Your task to perform on an android device: turn notification dots off Image 0: 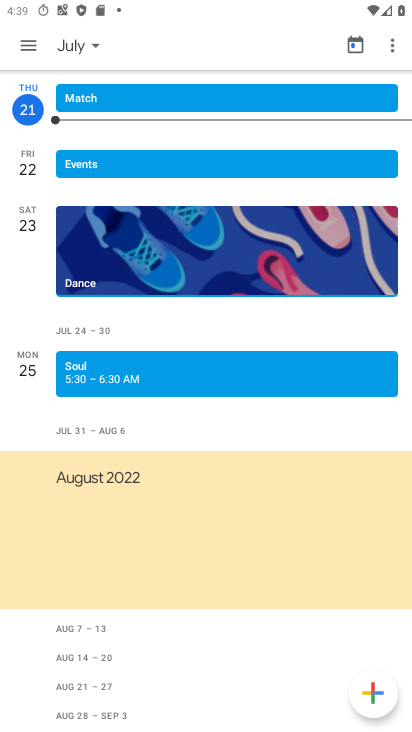
Step 0: press home button
Your task to perform on an android device: turn notification dots off Image 1: 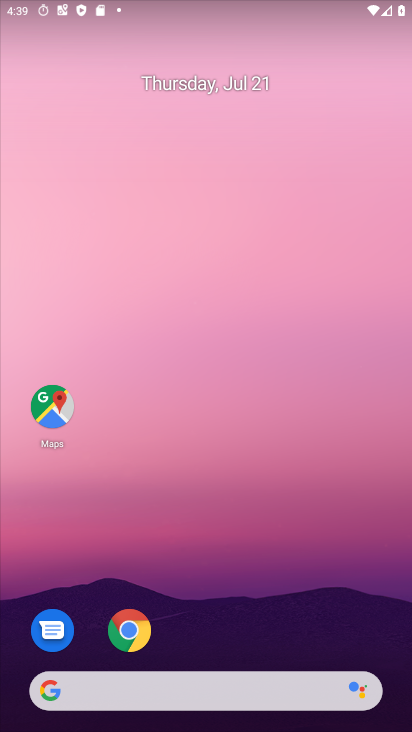
Step 1: drag from (233, 684) to (308, 77)
Your task to perform on an android device: turn notification dots off Image 2: 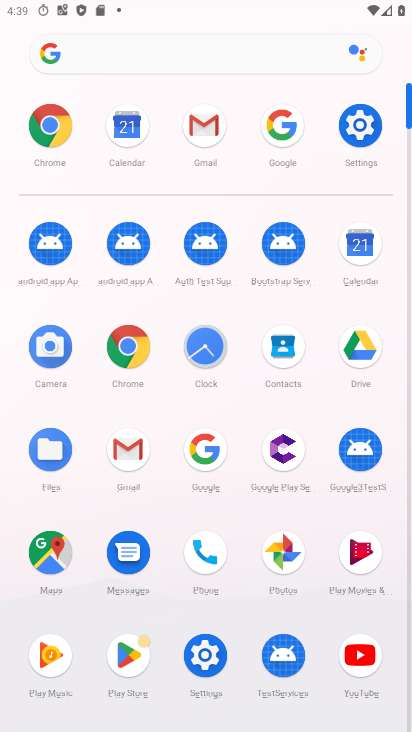
Step 2: click (359, 123)
Your task to perform on an android device: turn notification dots off Image 3: 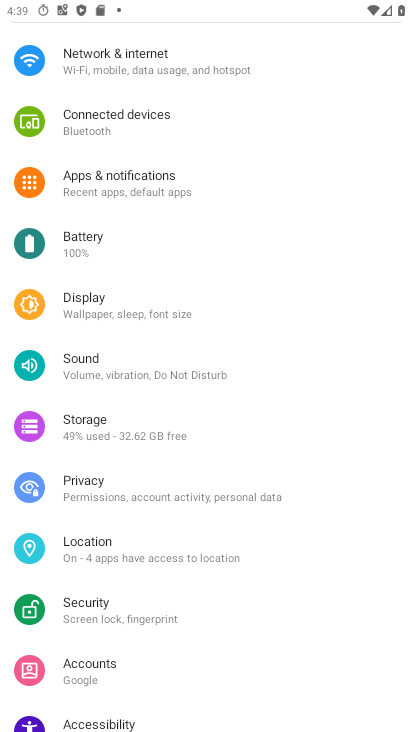
Step 3: click (142, 184)
Your task to perform on an android device: turn notification dots off Image 4: 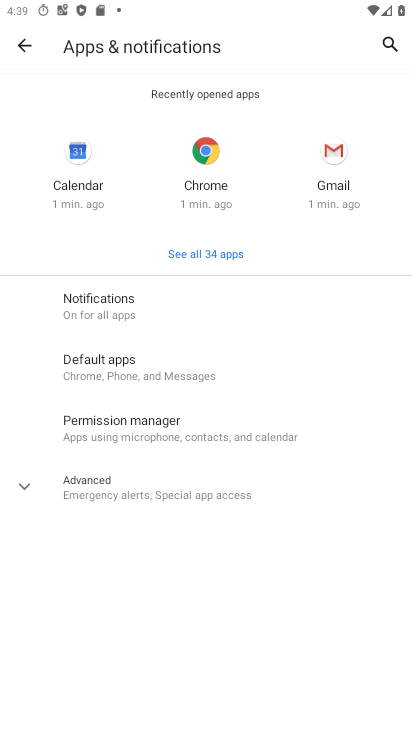
Step 4: click (87, 310)
Your task to perform on an android device: turn notification dots off Image 5: 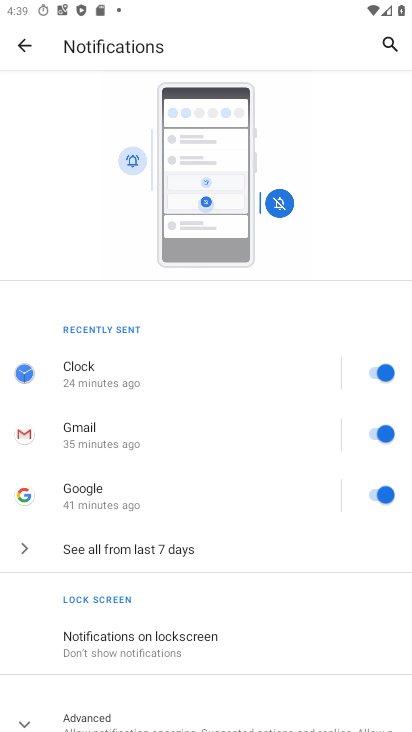
Step 5: click (97, 717)
Your task to perform on an android device: turn notification dots off Image 6: 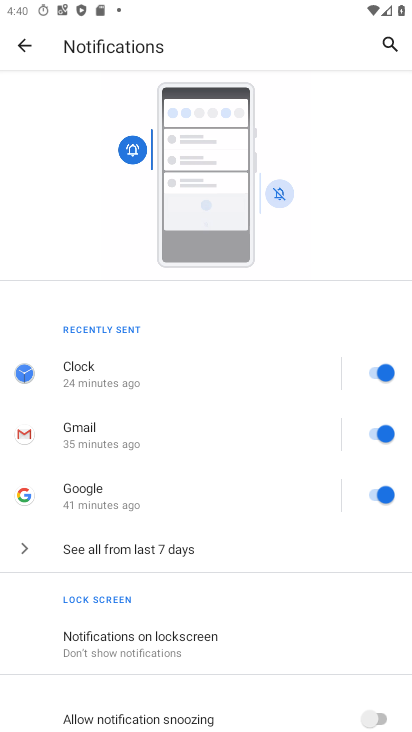
Step 6: drag from (155, 684) to (234, 446)
Your task to perform on an android device: turn notification dots off Image 7: 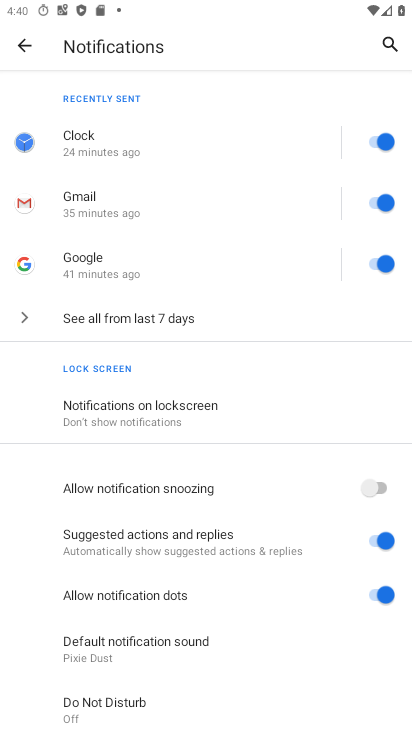
Step 7: click (385, 590)
Your task to perform on an android device: turn notification dots off Image 8: 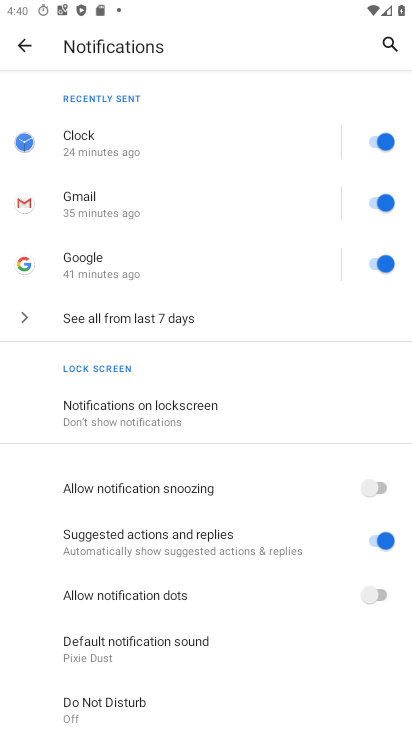
Step 8: task complete